Your task to perform on an android device: turn on javascript in the chrome app Image 0: 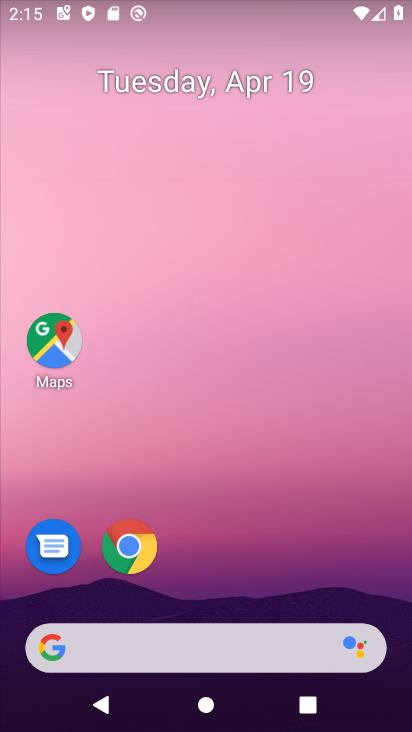
Step 0: click (118, 567)
Your task to perform on an android device: turn on javascript in the chrome app Image 1: 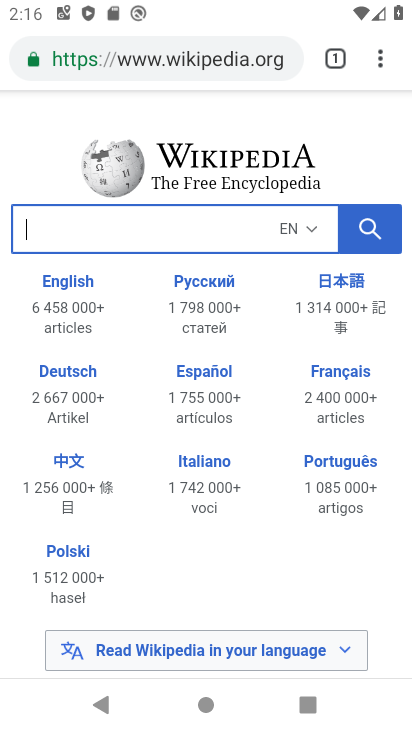
Step 1: drag from (370, 51) to (210, 579)
Your task to perform on an android device: turn on javascript in the chrome app Image 2: 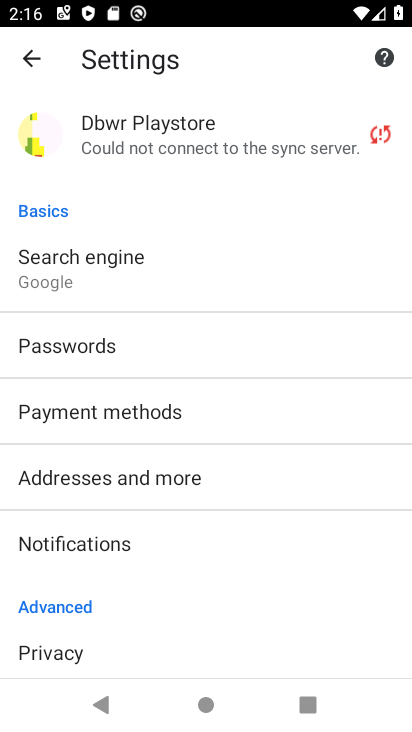
Step 2: drag from (84, 613) to (103, 40)
Your task to perform on an android device: turn on javascript in the chrome app Image 3: 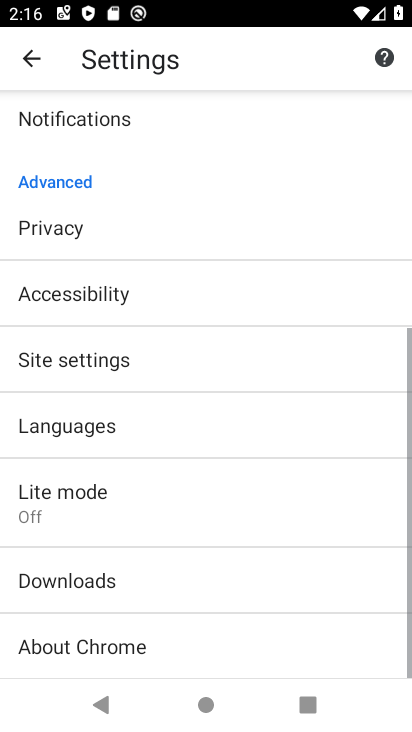
Step 3: click (103, 40)
Your task to perform on an android device: turn on javascript in the chrome app Image 4: 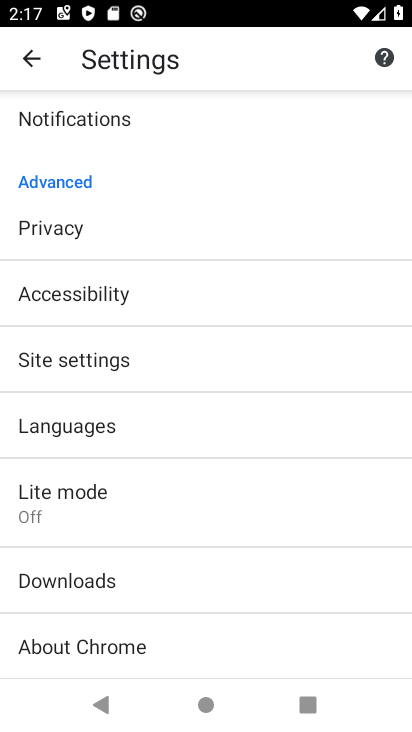
Step 4: click (86, 348)
Your task to perform on an android device: turn on javascript in the chrome app Image 5: 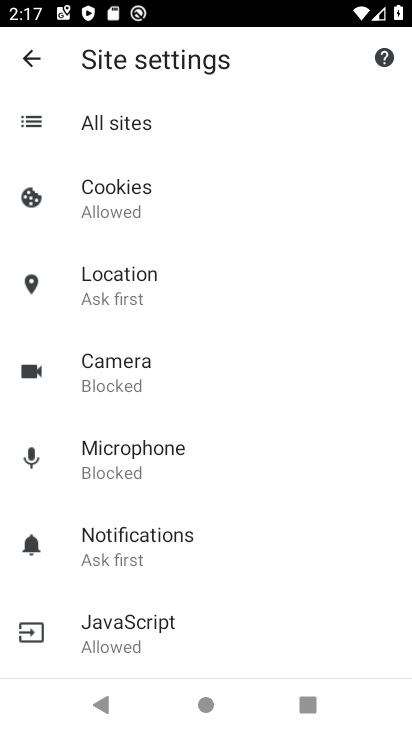
Step 5: drag from (96, 579) to (123, 114)
Your task to perform on an android device: turn on javascript in the chrome app Image 6: 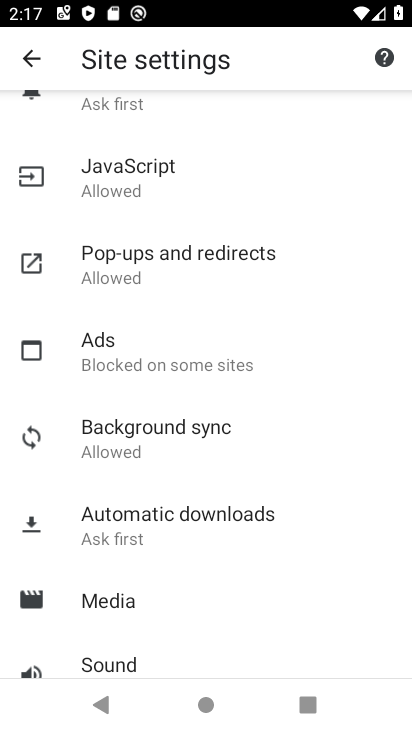
Step 6: click (119, 197)
Your task to perform on an android device: turn on javascript in the chrome app Image 7: 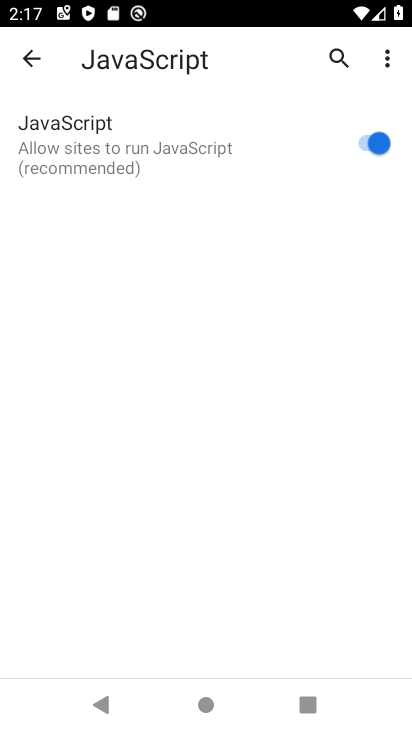
Step 7: task complete